Your task to perform on an android device: toggle airplane mode Image 0: 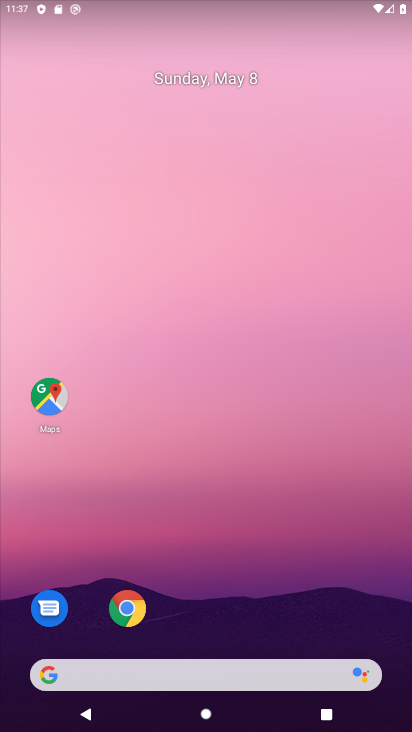
Step 0: drag from (219, 649) to (246, 462)
Your task to perform on an android device: toggle airplane mode Image 1: 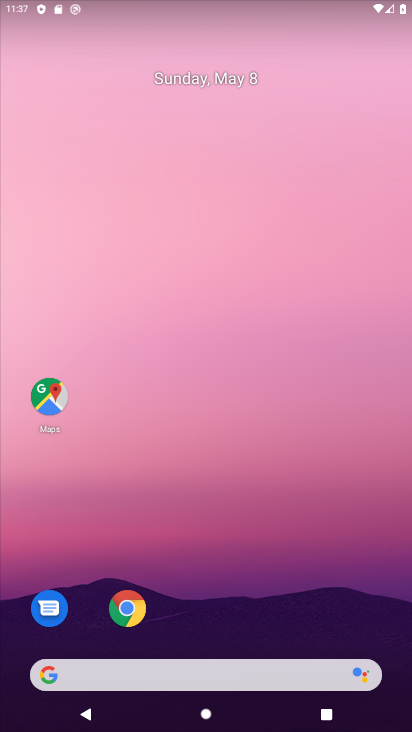
Step 1: drag from (244, 641) to (269, 449)
Your task to perform on an android device: toggle airplane mode Image 2: 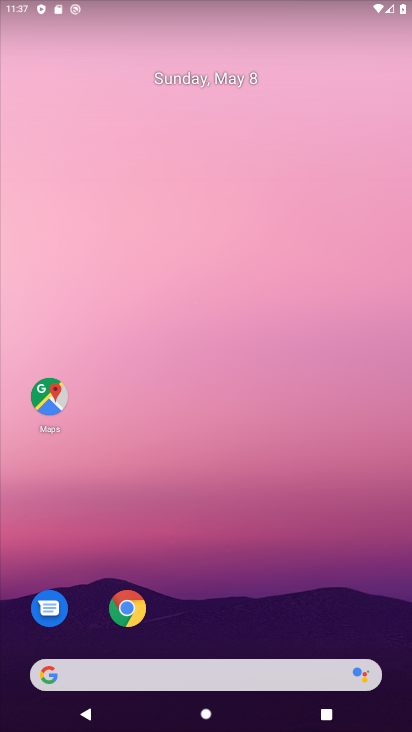
Step 2: drag from (245, 639) to (298, 381)
Your task to perform on an android device: toggle airplane mode Image 3: 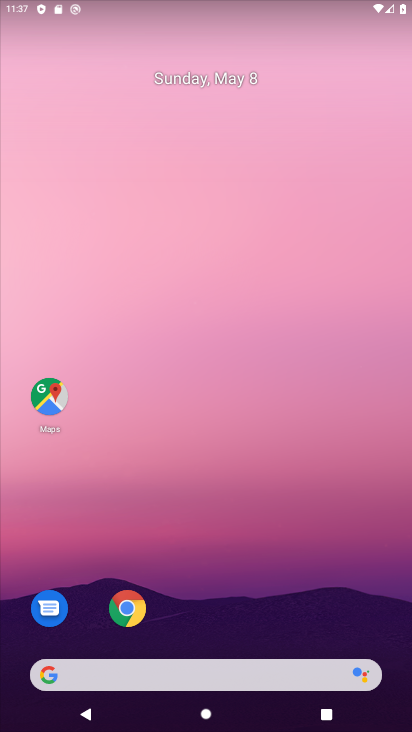
Step 3: drag from (213, 629) to (297, 359)
Your task to perform on an android device: toggle airplane mode Image 4: 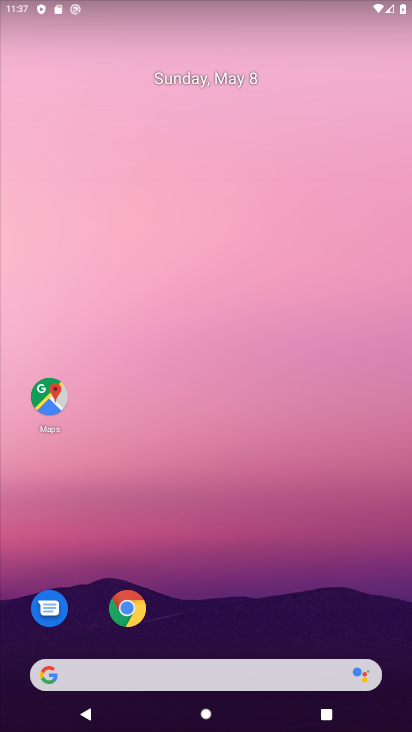
Step 4: drag from (281, 628) to (334, 460)
Your task to perform on an android device: toggle airplane mode Image 5: 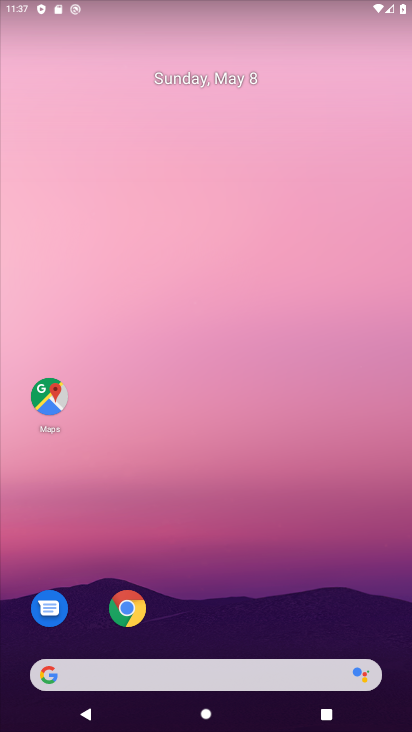
Step 5: drag from (205, 634) to (201, 256)
Your task to perform on an android device: toggle airplane mode Image 6: 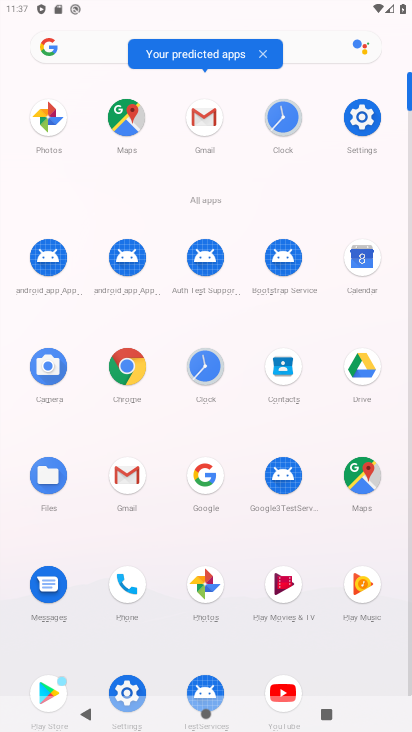
Step 6: click (365, 121)
Your task to perform on an android device: toggle airplane mode Image 7: 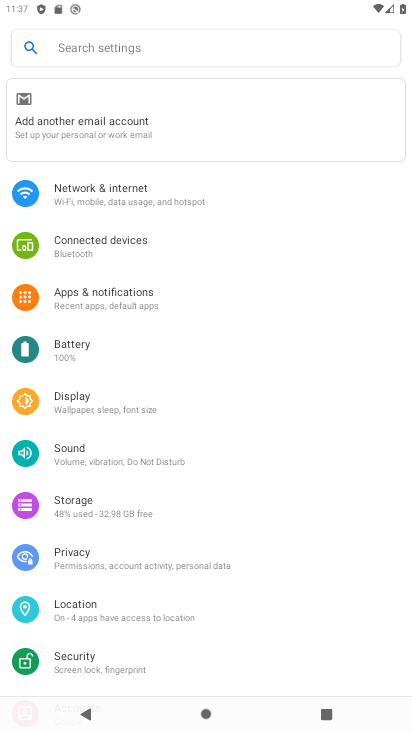
Step 7: click (225, 205)
Your task to perform on an android device: toggle airplane mode Image 8: 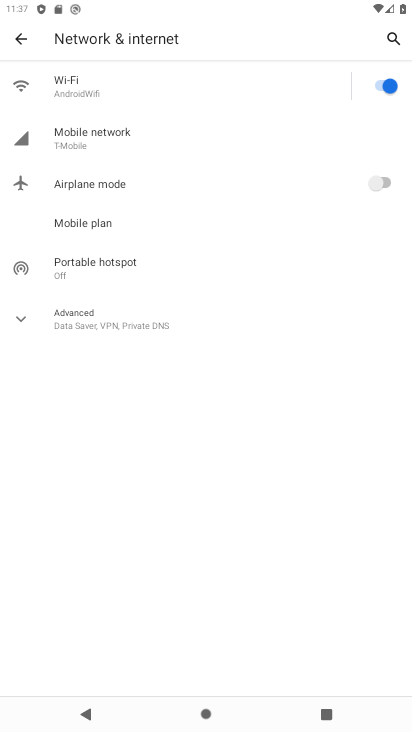
Step 8: click (392, 181)
Your task to perform on an android device: toggle airplane mode Image 9: 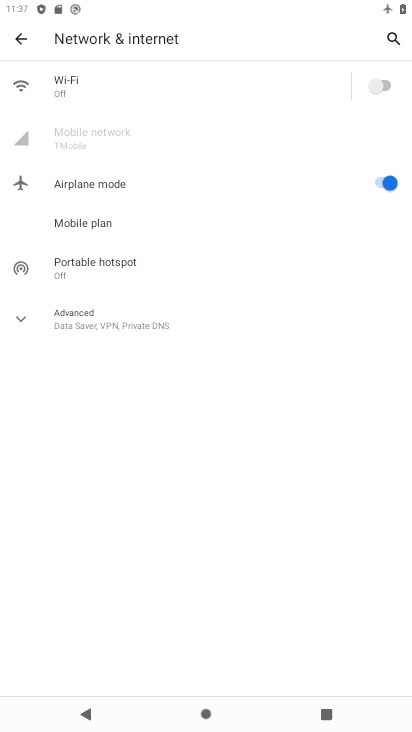
Step 9: task complete